Your task to perform on an android device: What is the recent news? Image 0: 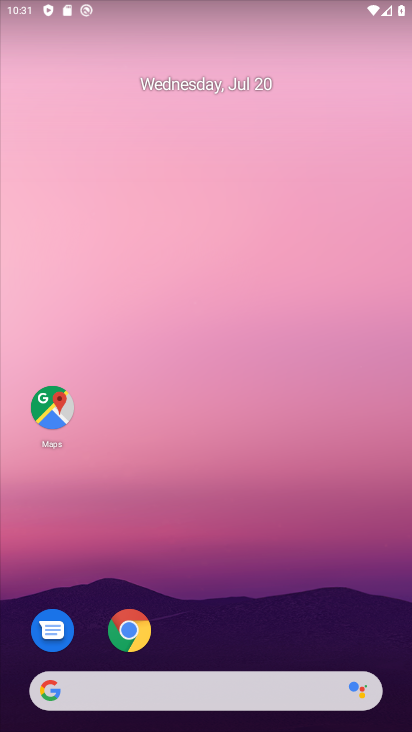
Step 0: drag from (41, 237) to (266, 242)
Your task to perform on an android device: What is the recent news? Image 1: 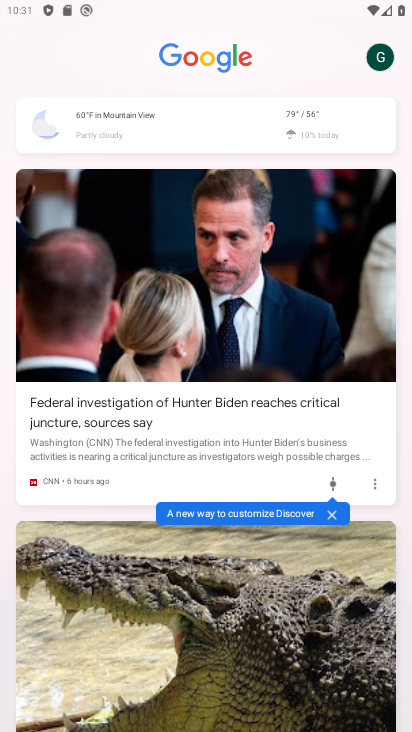
Step 1: task complete